Your task to perform on an android device: change timer sound Image 0: 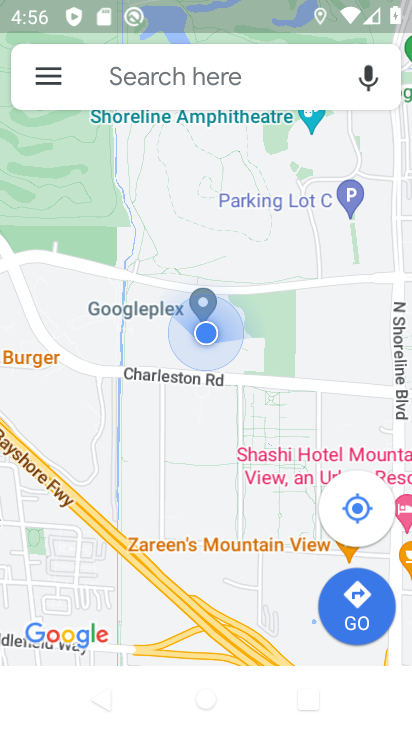
Step 0: press home button
Your task to perform on an android device: change timer sound Image 1: 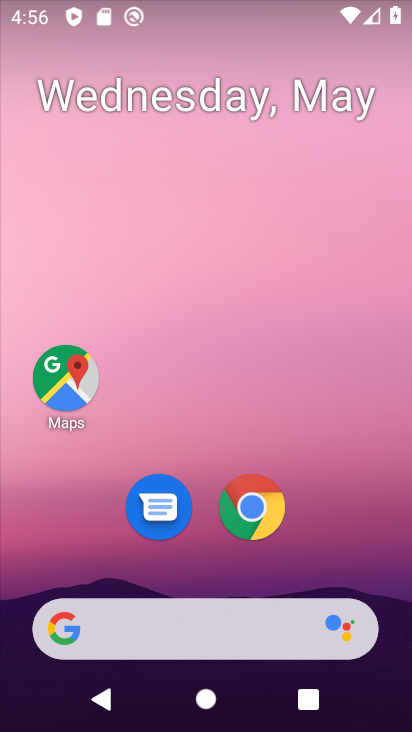
Step 1: drag from (357, 528) to (188, 166)
Your task to perform on an android device: change timer sound Image 2: 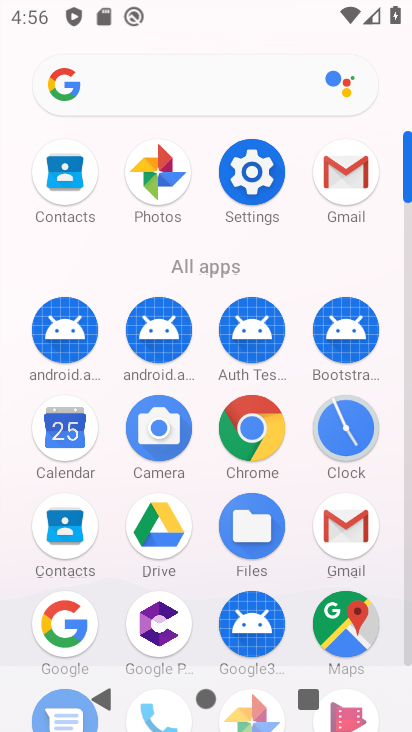
Step 2: click (347, 429)
Your task to perform on an android device: change timer sound Image 3: 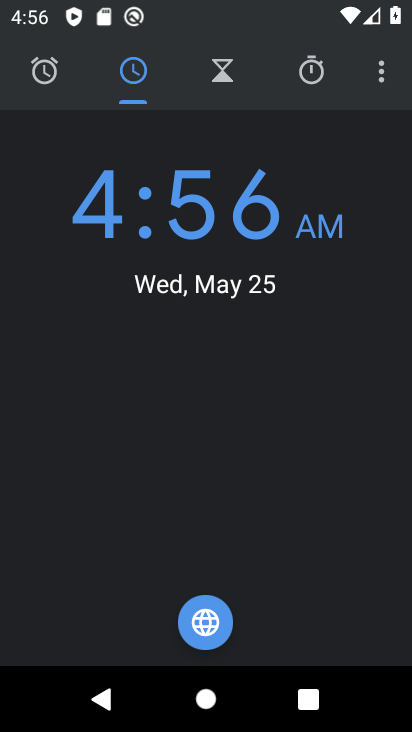
Step 3: click (381, 70)
Your task to perform on an android device: change timer sound Image 4: 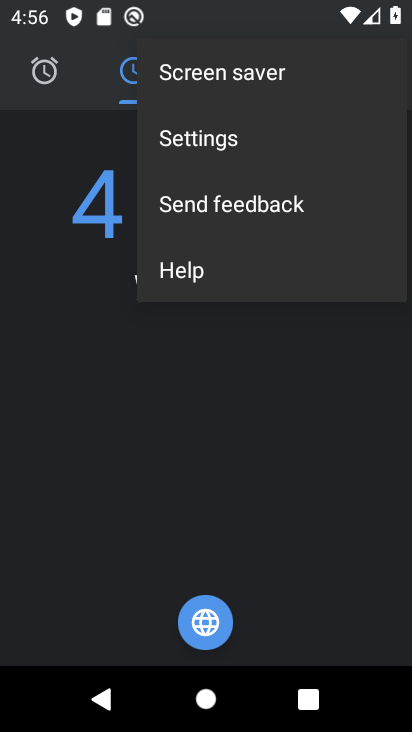
Step 4: click (218, 144)
Your task to perform on an android device: change timer sound Image 5: 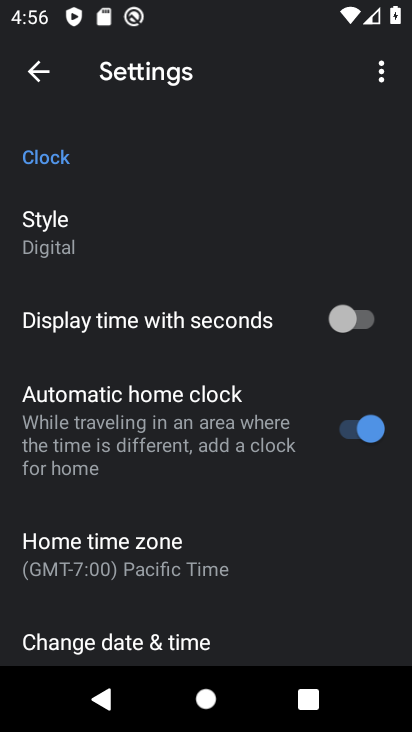
Step 5: drag from (188, 492) to (255, 267)
Your task to perform on an android device: change timer sound Image 6: 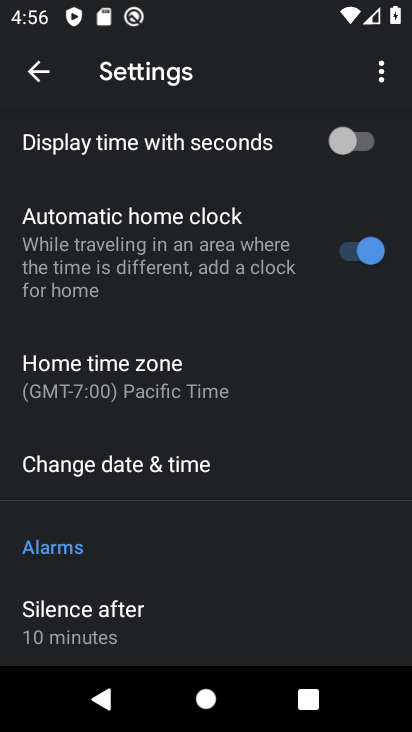
Step 6: drag from (144, 528) to (234, 380)
Your task to perform on an android device: change timer sound Image 7: 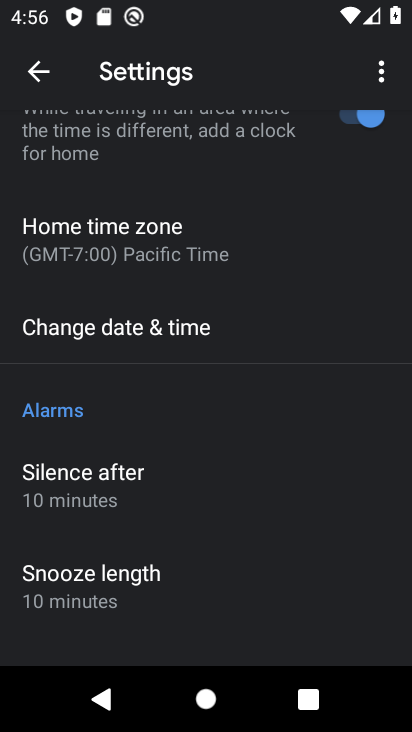
Step 7: drag from (222, 537) to (269, 405)
Your task to perform on an android device: change timer sound Image 8: 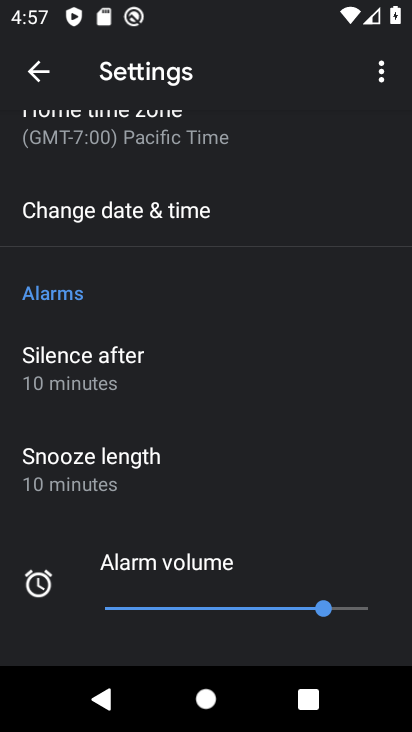
Step 8: drag from (204, 513) to (285, 366)
Your task to perform on an android device: change timer sound Image 9: 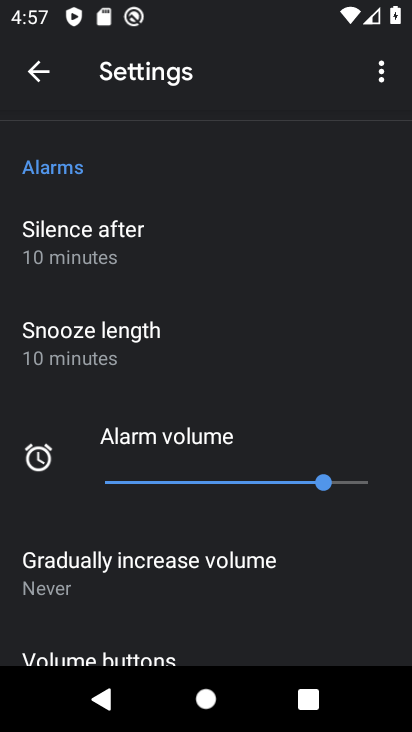
Step 9: drag from (156, 595) to (269, 438)
Your task to perform on an android device: change timer sound Image 10: 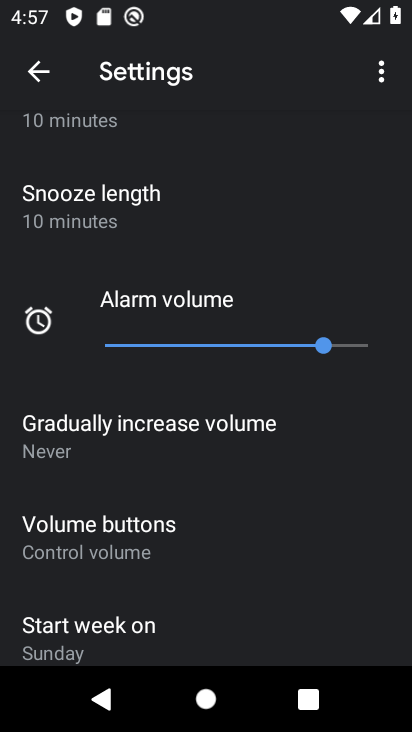
Step 10: drag from (159, 579) to (275, 402)
Your task to perform on an android device: change timer sound Image 11: 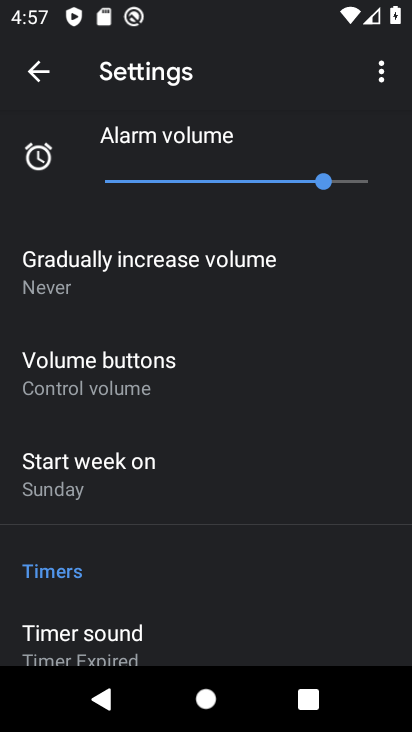
Step 11: drag from (251, 595) to (295, 456)
Your task to perform on an android device: change timer sound Image 12: 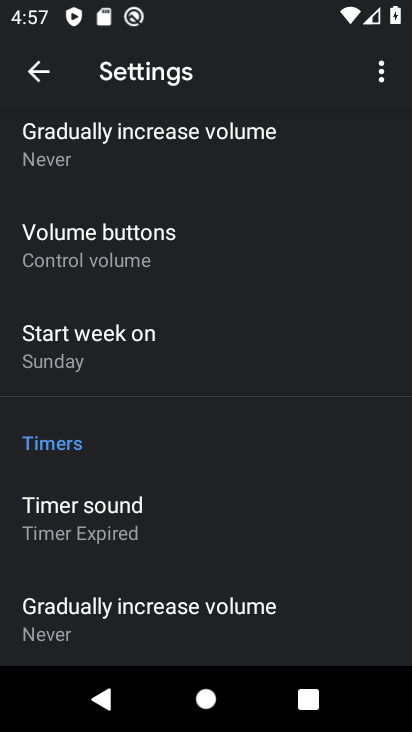
Step 12: click (113, 518)
Your task to perform on an android device: change timer sound Image 13: 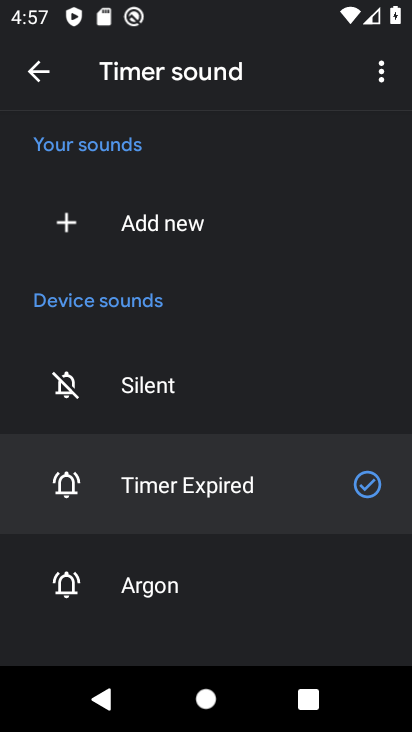
Step 13: drag from (217, 594) to (270, 415)
Your task to perform on an android device: change timer sound Image 14: 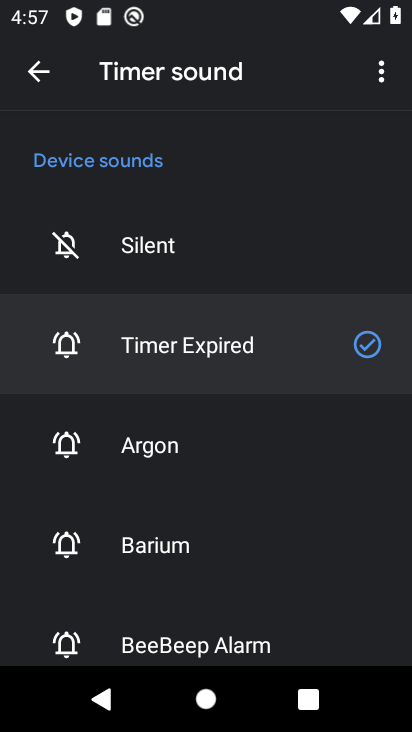
Step 14: drag from (180, 557) to (210, 372)
Your task to perform on an android device: change timer sound Image 15: 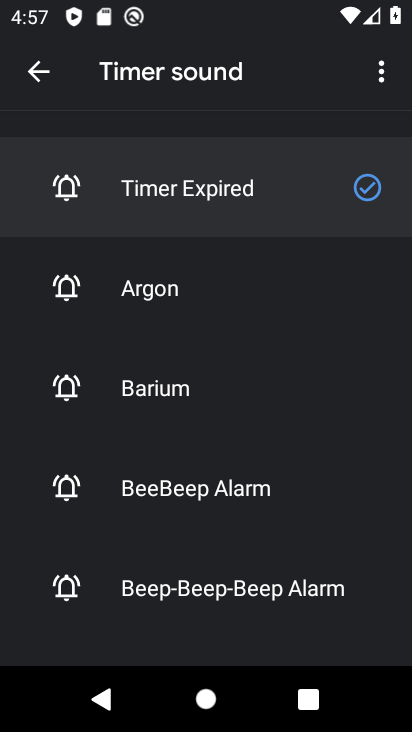
Step 15: click (179, 487)
Your task to perform on an android device: change timer sound Image 16: 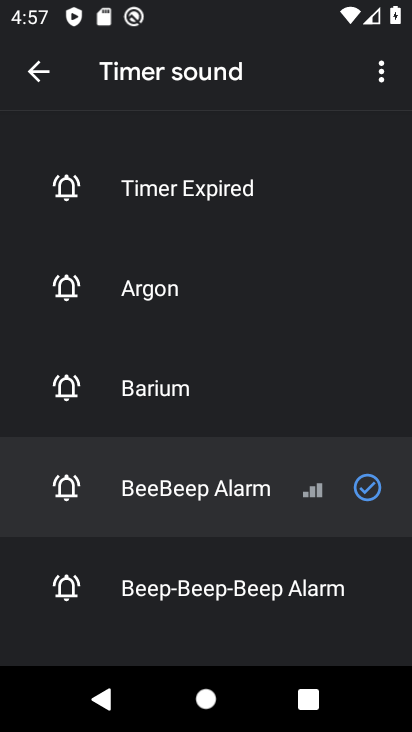
Step 16: task complete